Your task to perform on an android device: open a new tab in the chrome app Image 0: 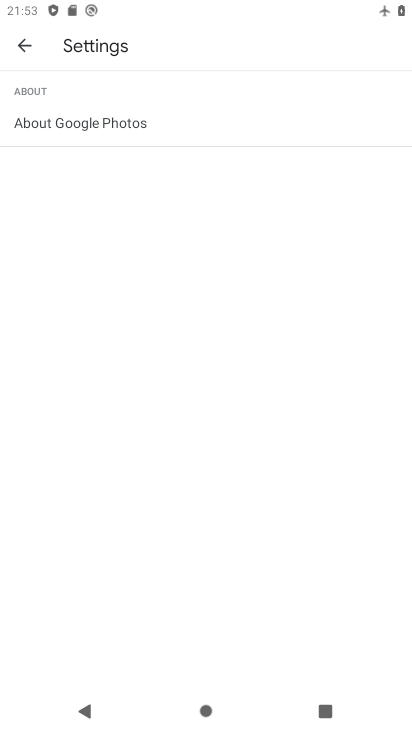
Step 0: press home button
Your task to perform on an android device: open a new tab in the chrome app Image 1: 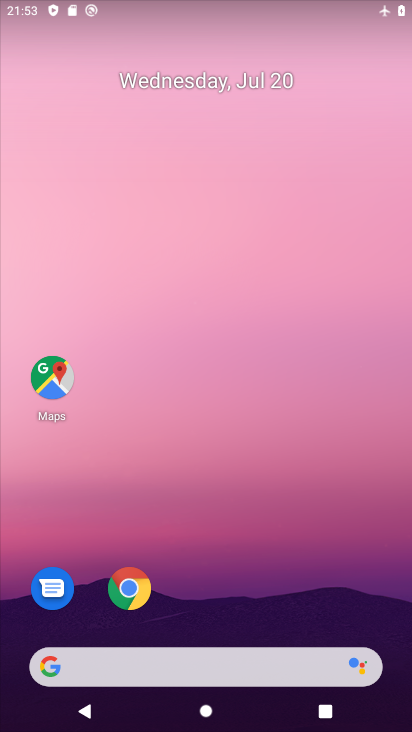
Step 1: click (133, 593)
Your task to perform on an android device: open a new tab in the chrome app Image 2: 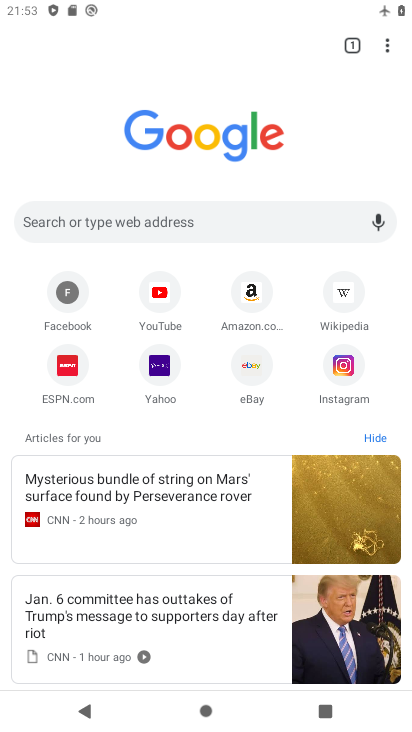
Step 2: click (386, 53)
Your task to perform on an android device: open a new tab in the chrome app Image 3: 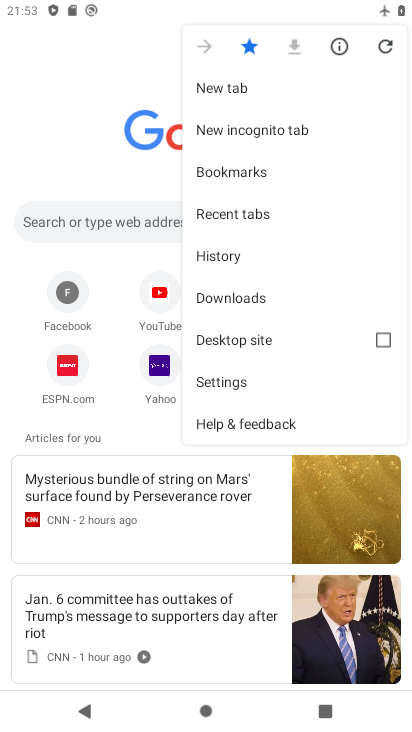
Step 3: click (209, 85)
Your task to perform on an android device: open a new tab in the chrome app Image 4: 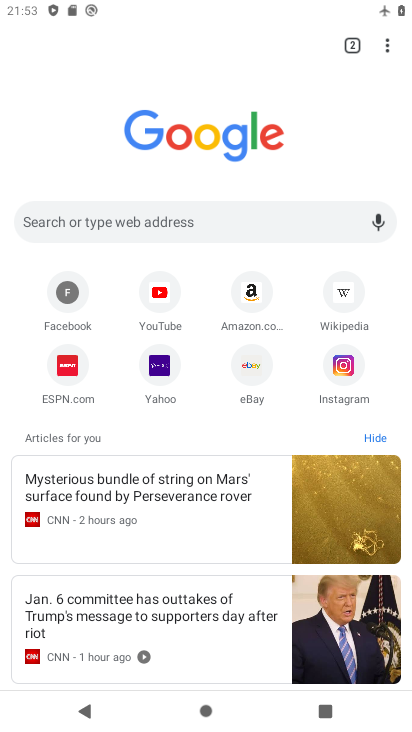
Step 4: task complete